Your task to perform on an android device: Search for Italian restaurants on Maps Image 0: 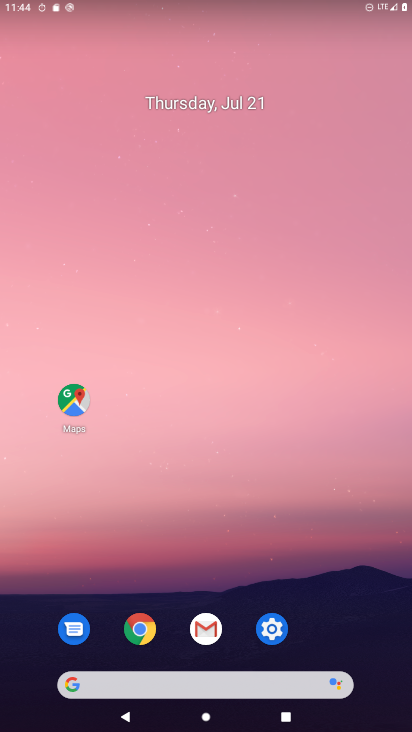
Step 0: click (72, 405)
Your task to perform on an android device: Search for Italian restaurants on Maps Image 1: 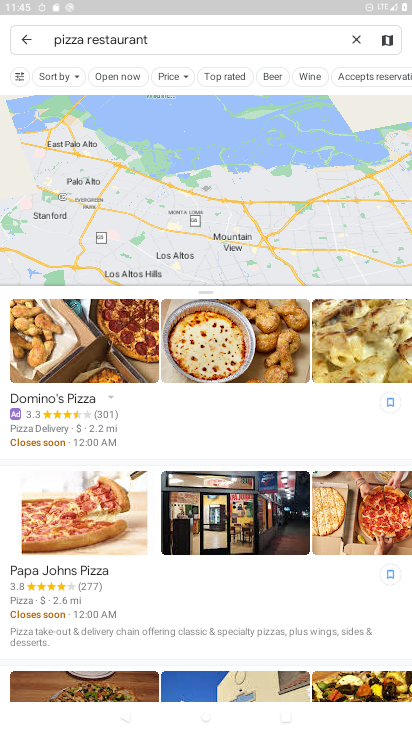
Step 1: click (359, 42)
Your task to perform on an android device: Search for Italian restaurants on Maps Image 2: 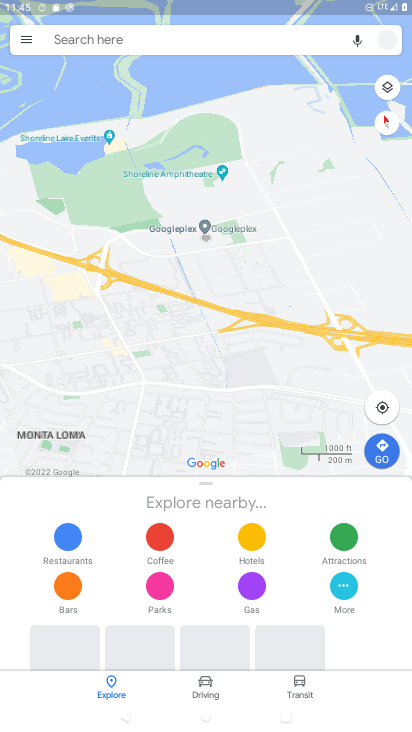
Step 2: click (260, 38)
Your task to perform on an android device: Search for Italian restaurants on Maps Image 3: 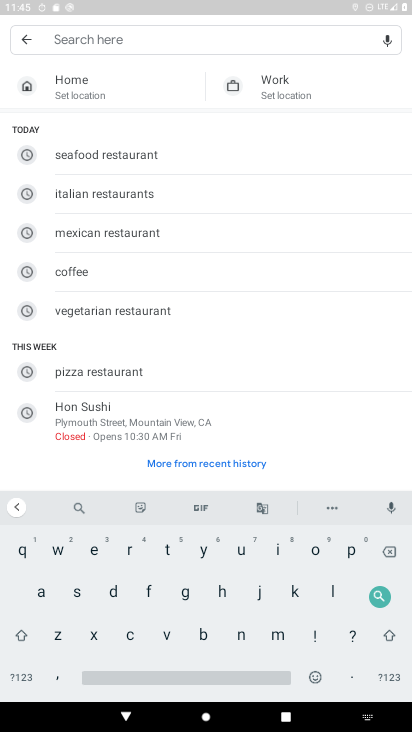
Step 3: click (279, 553)
Your task to perform on an android device: Search for Italian restaurants on Maps Image 4: 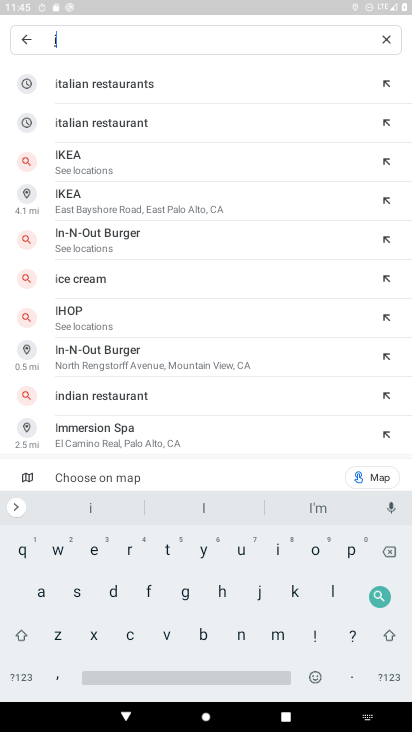
Step 4: click (110, 83)
Your task to perform on an android device: Search for Italian restaurants on Maps Image 5: 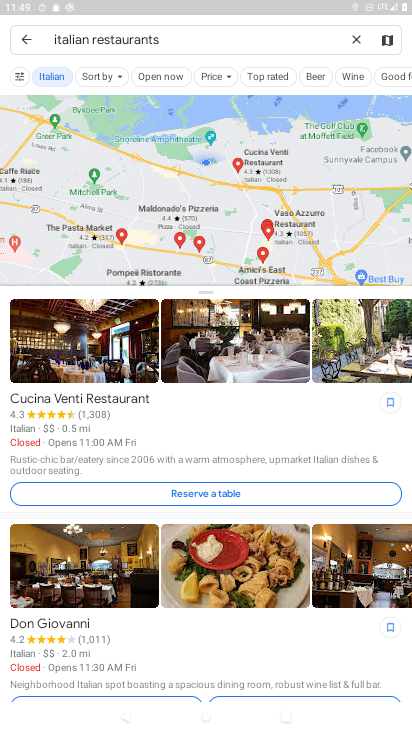
Step 5: task complete